Your task to perform on an android device: toggle sleep mode Image 0: 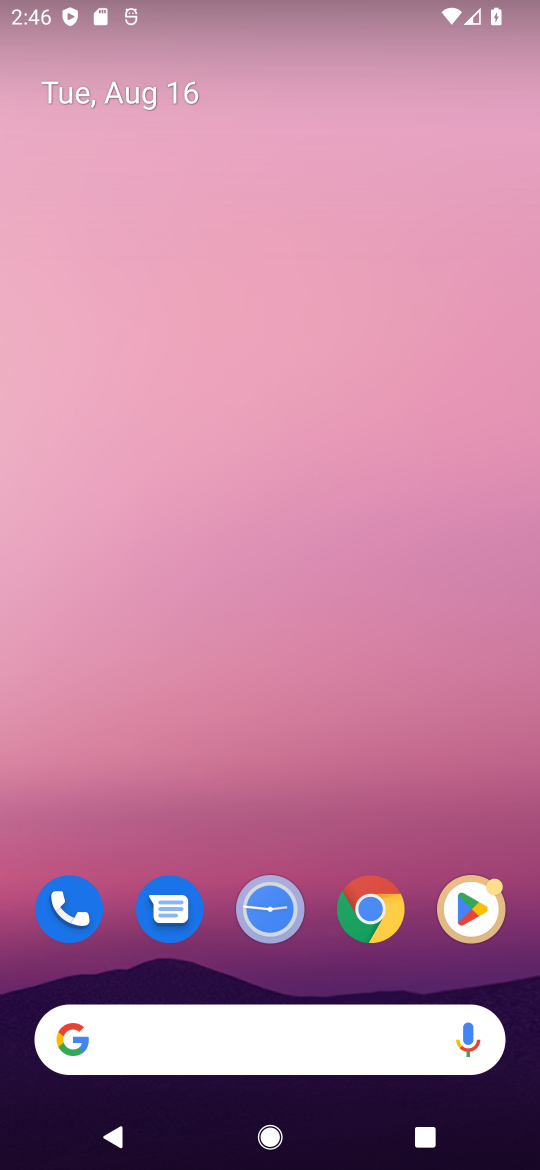
Step 0: drag from (187, 736) to (283, 194)
Your task to perform on an android device: toggle sleep mode Image 1: 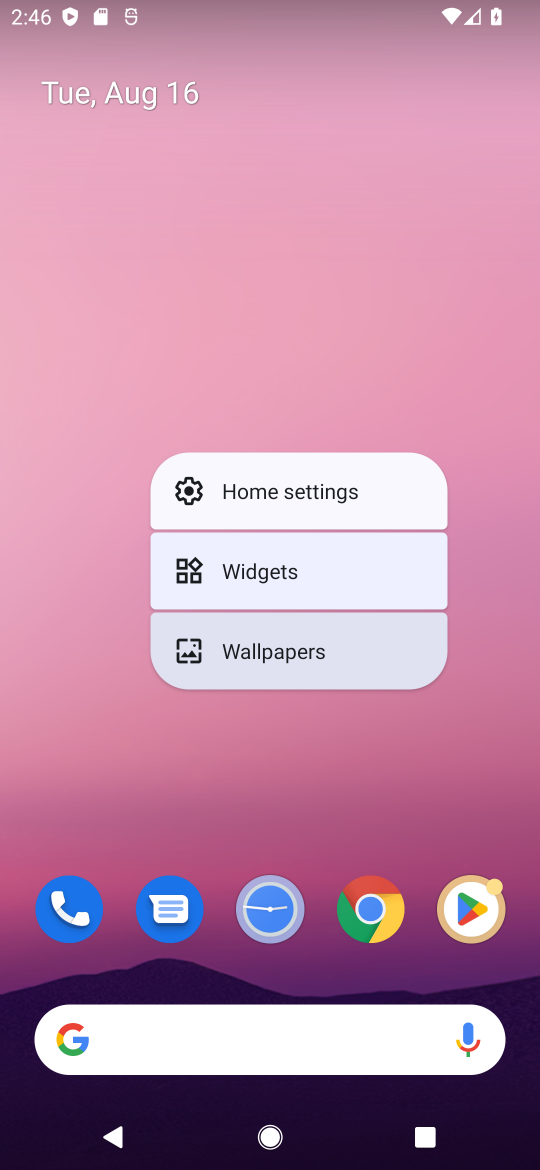
Step 1: click (246, 961)
Your task to perform on an android device: toggle sleep mode Image 2: 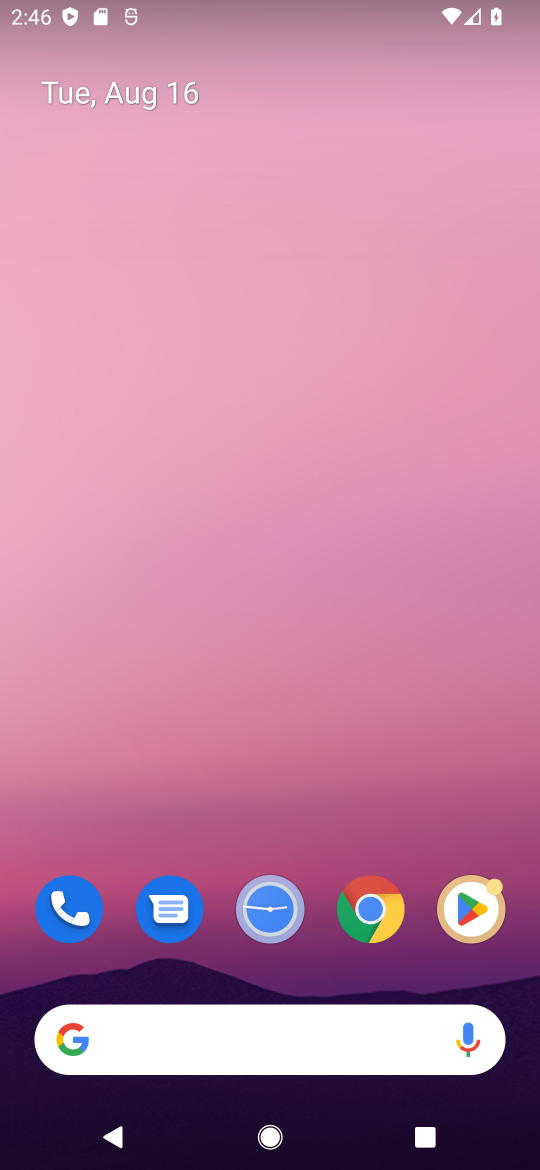
Step 2: drag from (226, 959) to (170, 12)
Your task to perform on an android device: toggle sleep mode Image 3: 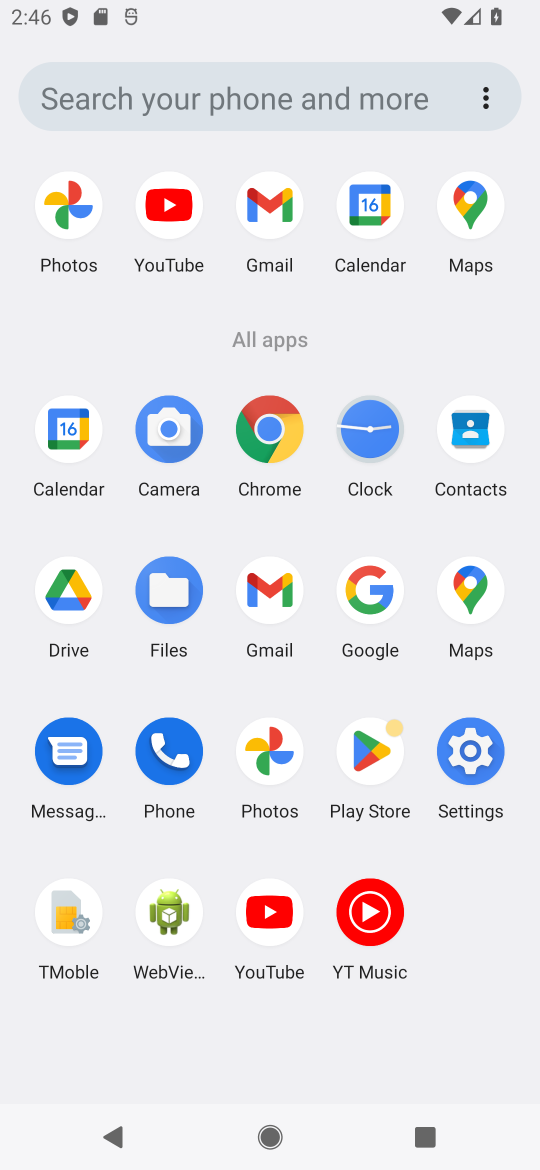
Step 3: click (466, 732)
Your task to perform on an android device: toggle sleep mode Image 4: 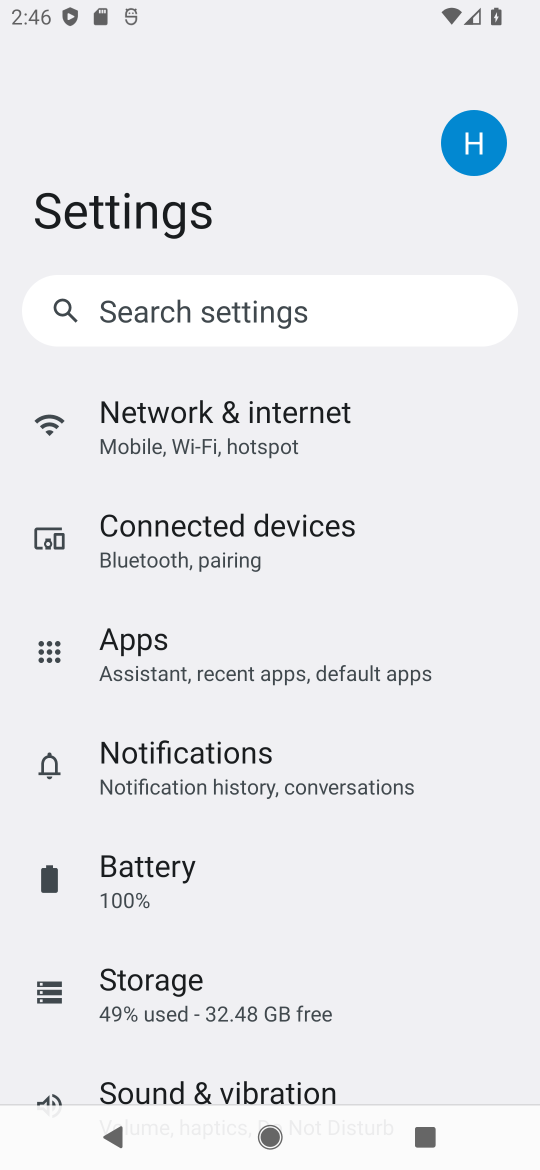
Step 4: task complete